Your task to perform on an android device: Go to display settings Image 0: 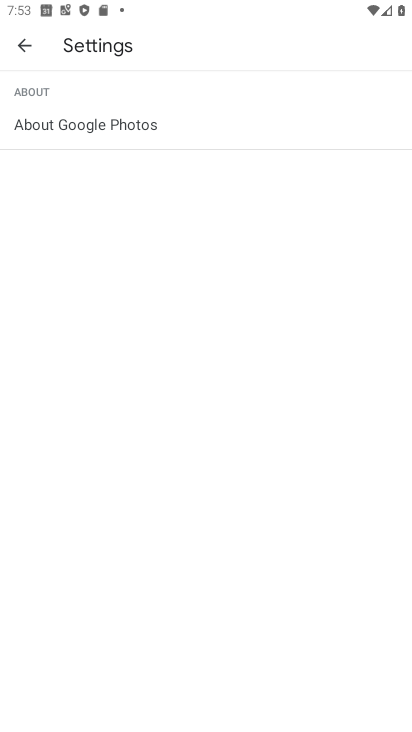
Step 0: press home button
Your task to perform on an android device: Go to display settings Image 1: 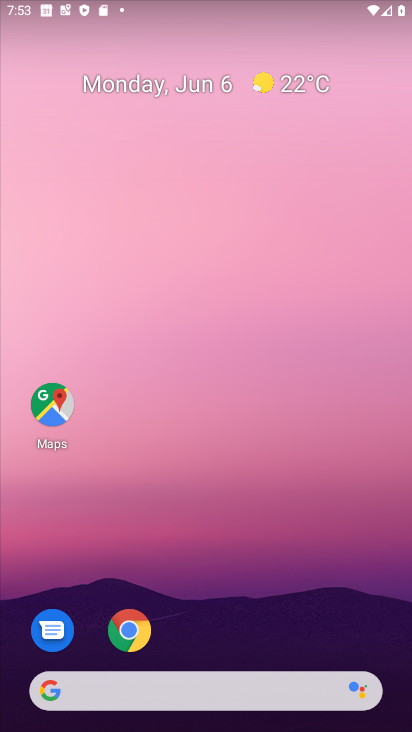
Step 1: drag from (160, 713) to (185, 83)
Your task to perform on an android device: Go to display settings Image 2: 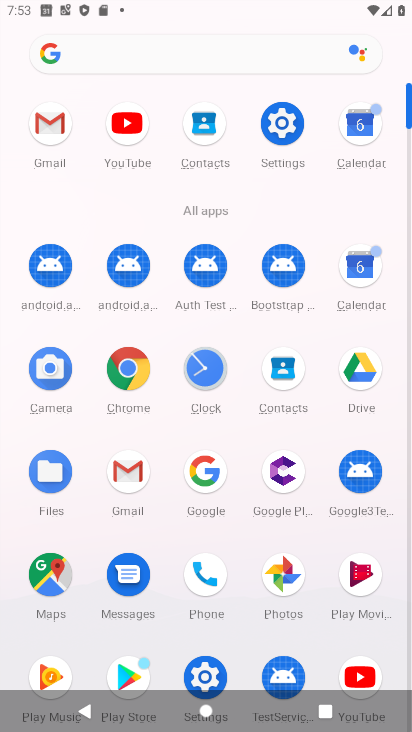
Step 2: click (279, 110)
Your task to perform on an android device: Go to display settings Image 3: 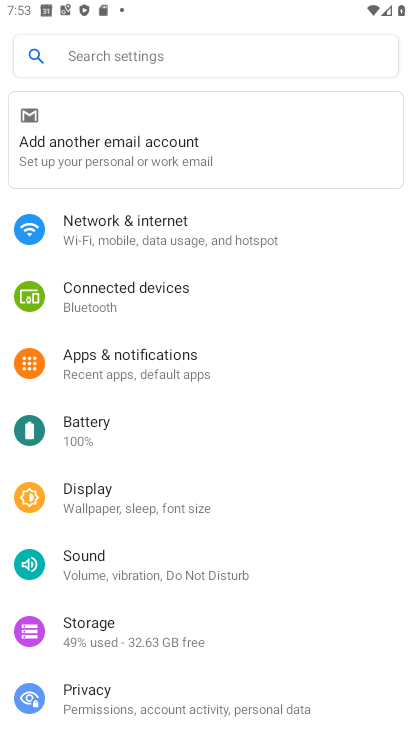
Step 3: click (100, 508)
Your task to perform on an android device: Go to display settings Image 4: 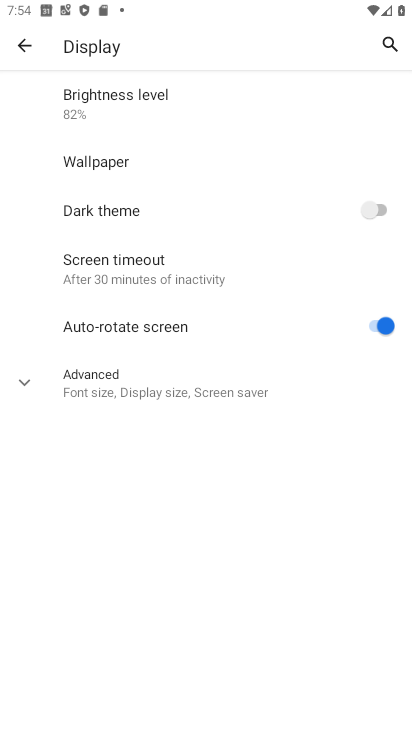
Step 4: task complete